Your task to perform on an android device: turn on sleep mode Image 0: 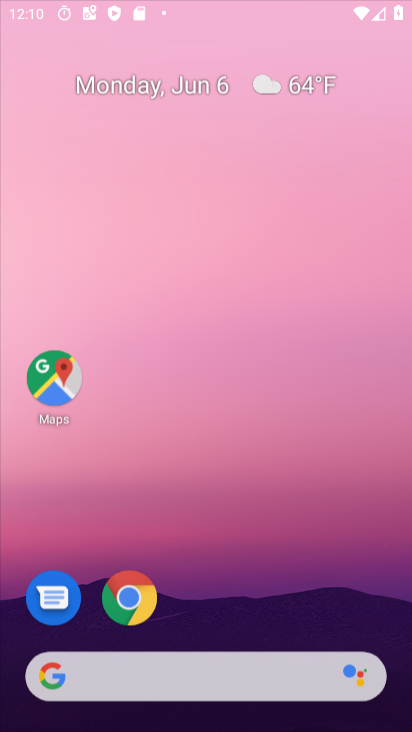
Step 0: click (78, 0)
Your task to perform on an android device: turn on sleep mode Image 1: 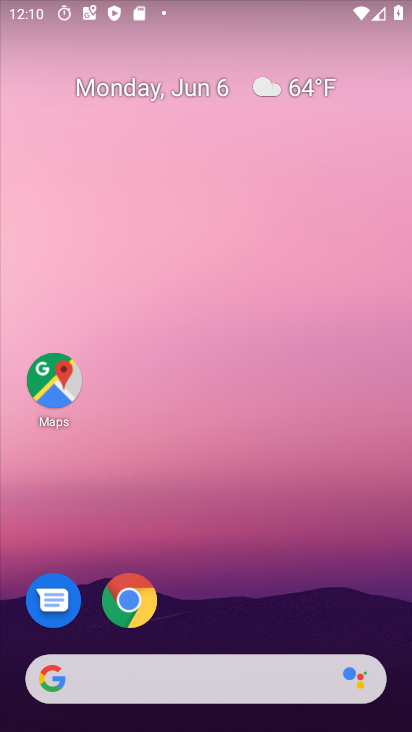
Step 1: drag from (250, 707) to (84, 108)
Your task to perform on an android device: turn on sleep mode Image 2: 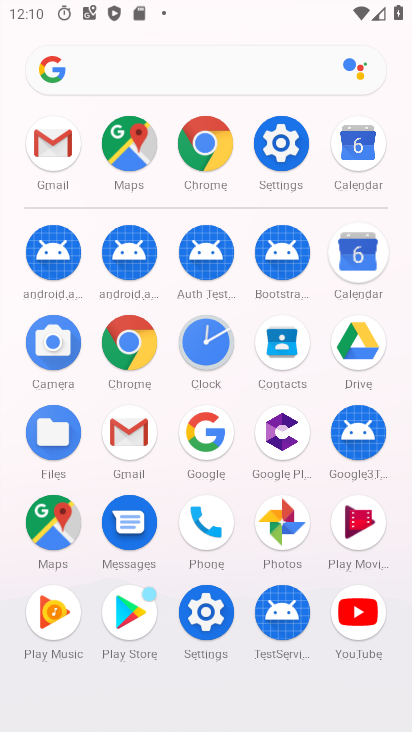
Step 2: click (194, 363)
Your task to perform on an android device: turn on sleep mode Image 3: 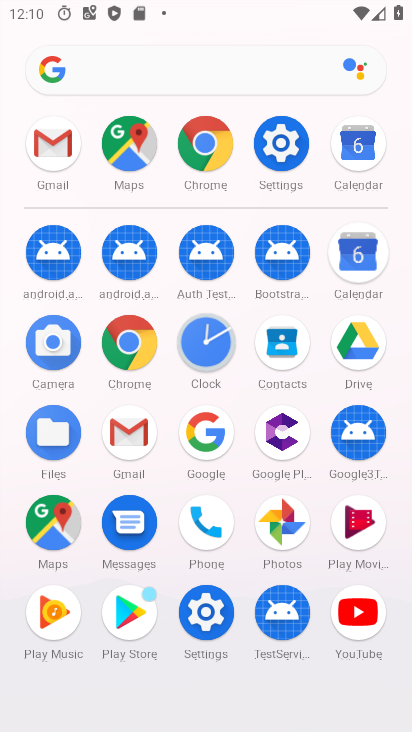
Step 3: click (194, 354)
Your task to perform on an android device: turn on sleep mode Image 4: 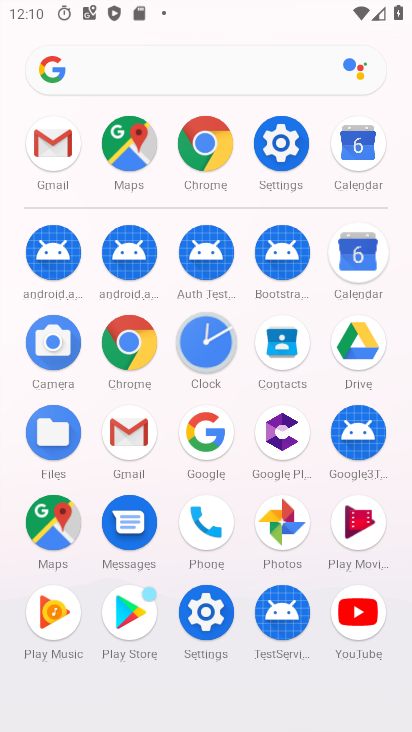
Step 4: click (193, 353)
Your task to perform on an android device: turn on sleep mode Image 5: 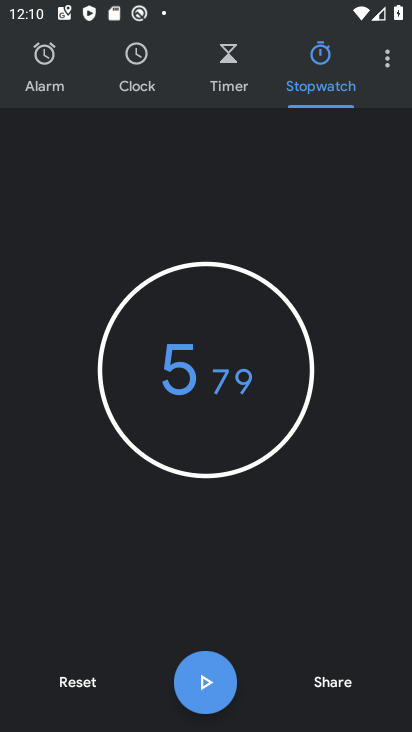
Step 5: press back button
Your task to perform on an android device: turn on sleep mode Image 6: 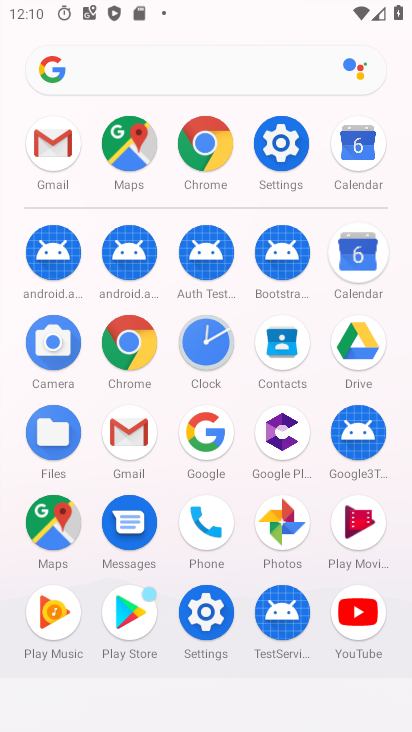
Step 6: click (283, 153)
Your task to perform on an android device: turn on sleep mode Image 7: 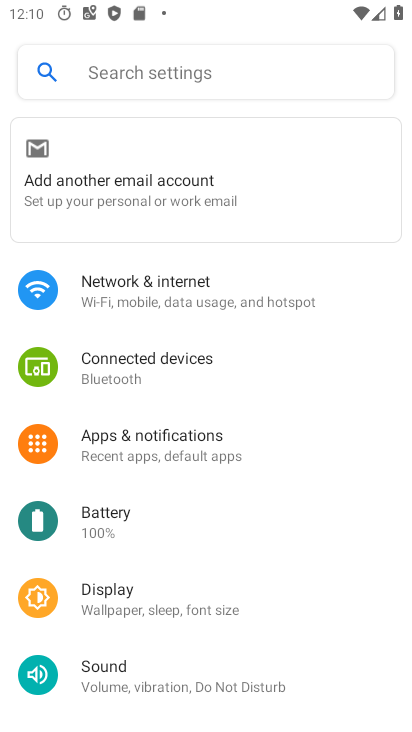
Step 7: click (131, 609)
Your task to perform on an android device: turn on sleep mode Image 8: 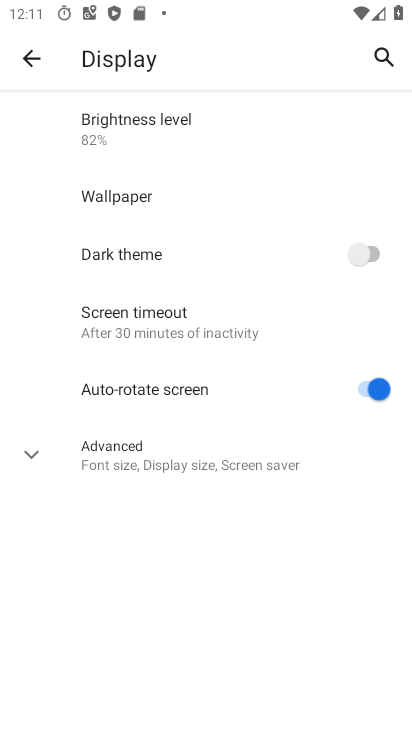
Step 8: task complete